Your task to perform on an android device: clear history in the chrome app Image 0: 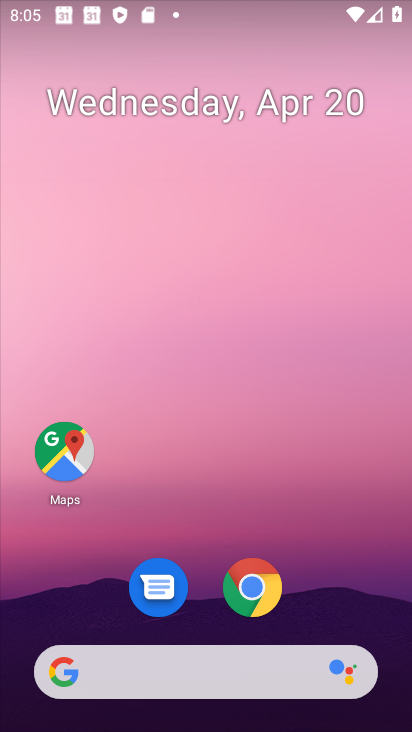
Step 0: drag from (352, 609) to (361, 215)
Your task to perform on an android device: clear history in the chrome app Image 1: 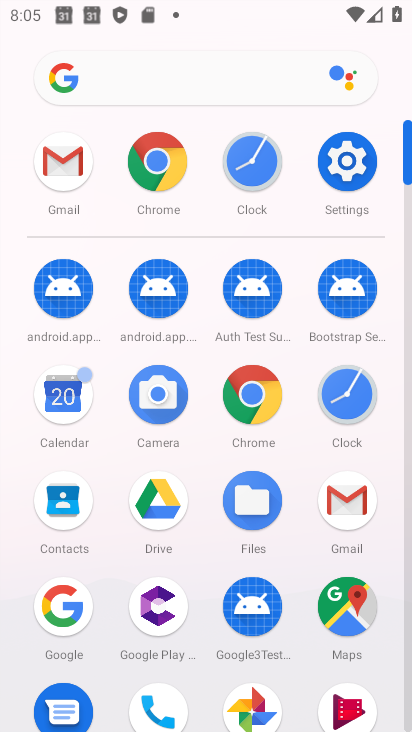
Step 1: click (255, 394)
Your task to perform on an android device: clear history in the chrome app Image 2: 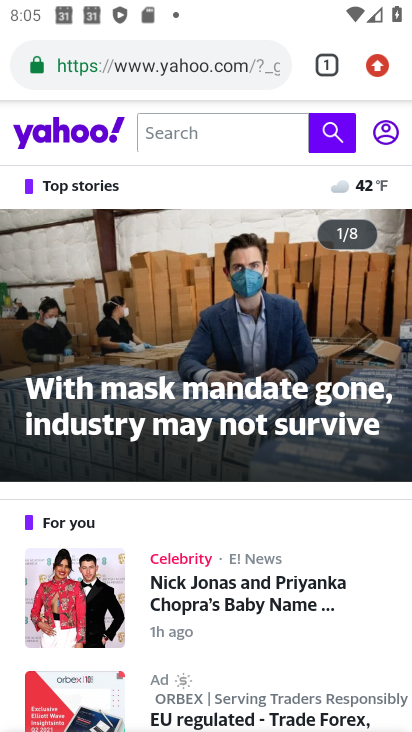
Step 2: click (375, 64)
Your task to perform on an android device: clear history in the chrome app Image 3: 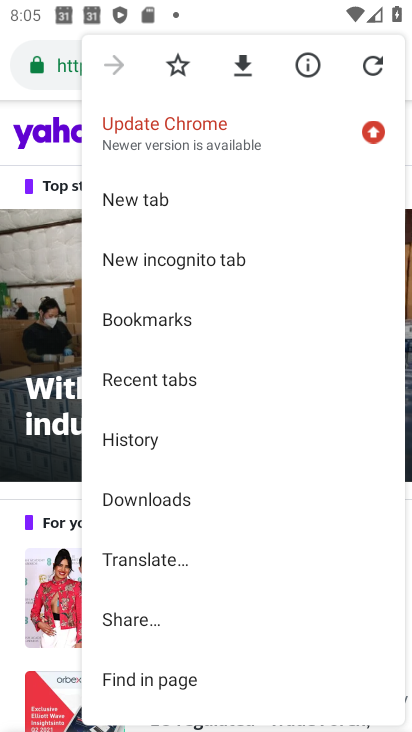
Step 3: click (140, 439)
Your task to perform on an android device: clear history in the chrome app Image 4: 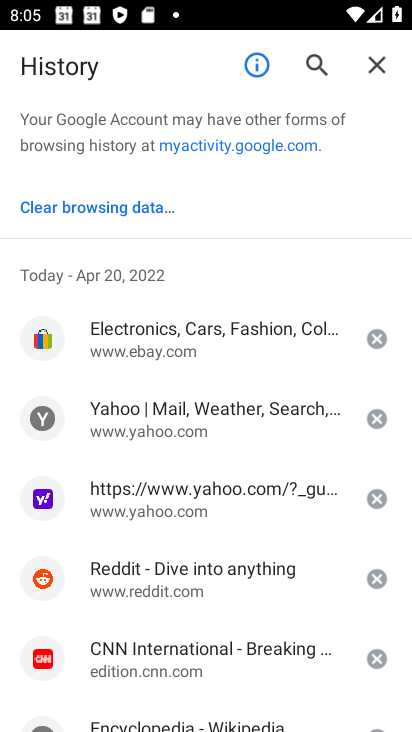
Step 4: click (156, 214)
Your task to perform on an android device: clear history in the chrome app Image 5: 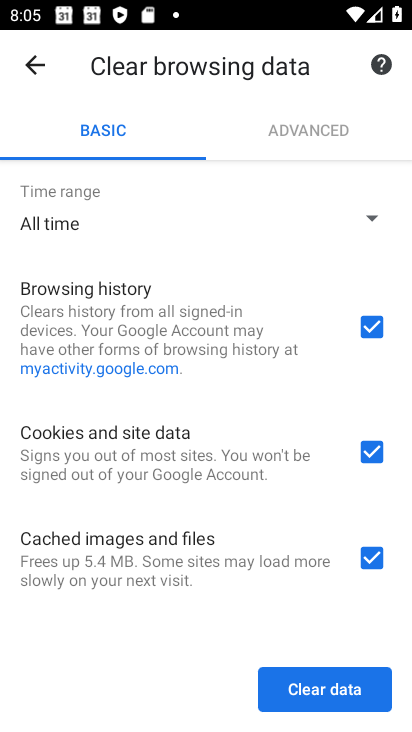
Step 5: click (321, 700)
Your task to perform on an android device: clear history in the chrome app Image 6: 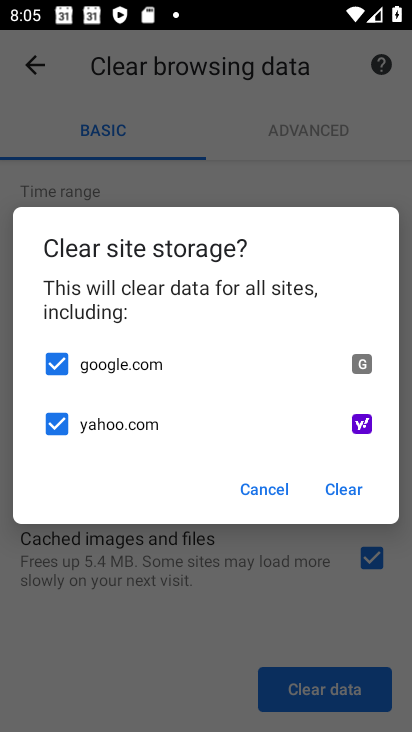
Step 6: click (342, 492)
Your task to perform on an android device: clear history in the chrome app Image 7: 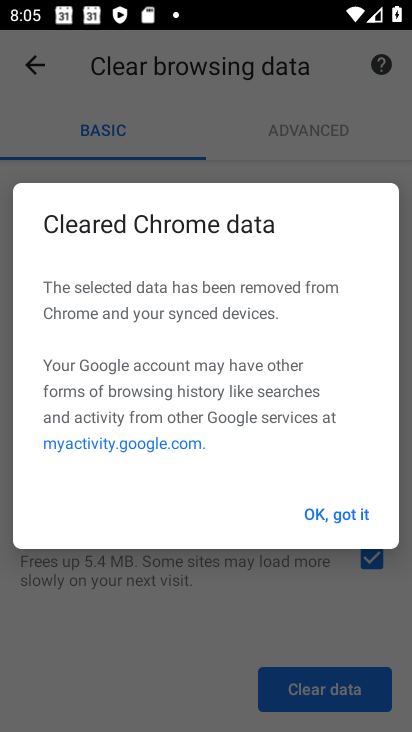
Step 7: click (354, 516)
Your task to perform on an android device: clear history in the chrome app Image 8: 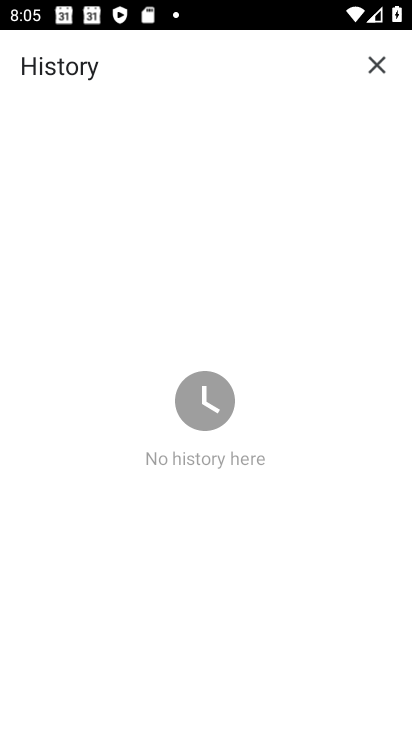
Step 8: task complete